Your task to perform on an android device: Search for seafood restaurants on Google Maps Image 0: 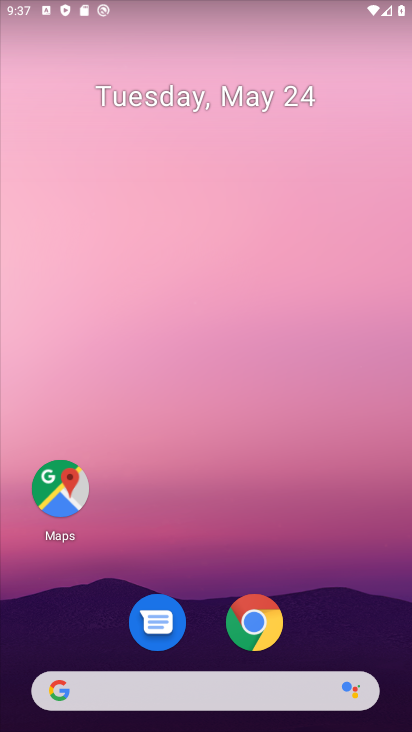
Step 0: drag from (213, 712) to (361, 109)
Your task to perform on an android device: Search for seafood restaurants on Google Maps Image 1: 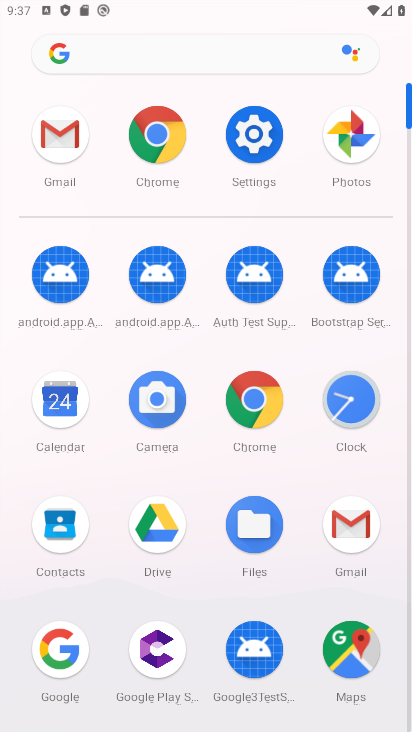
Step 1: click (352, 641)
Your task to perform on an android device: Search for seafood restaurants on Google Maps Image 2: 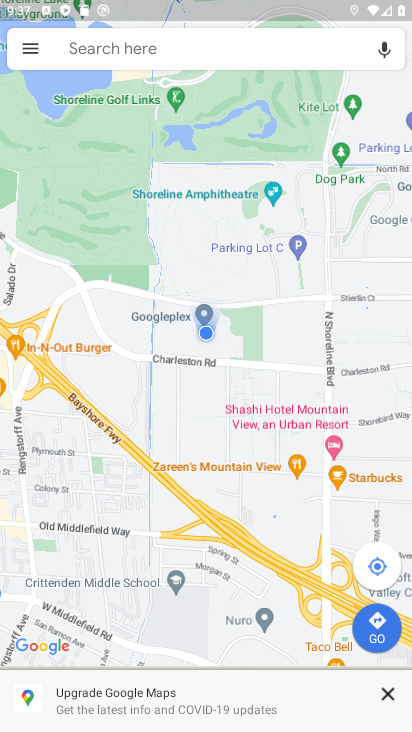
Step 2: click (144, 45)
Your task to perform on an android device: Search for seafood restaurants on Google Maps Image 3: 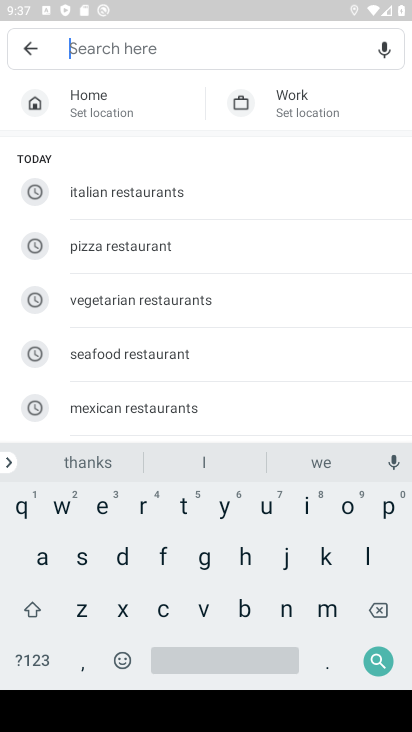
Step 3: click (75, 559)
Your task to perform on an android device: Search for seafood restaurants on Google Maps Image 4: 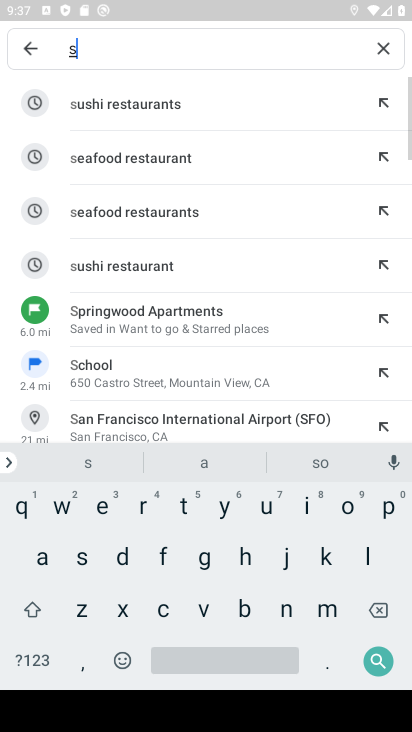
Step 4: click (151, 152)
Your task to perform on an android device: Search for seafood restaurants on Google Maps Image 5: 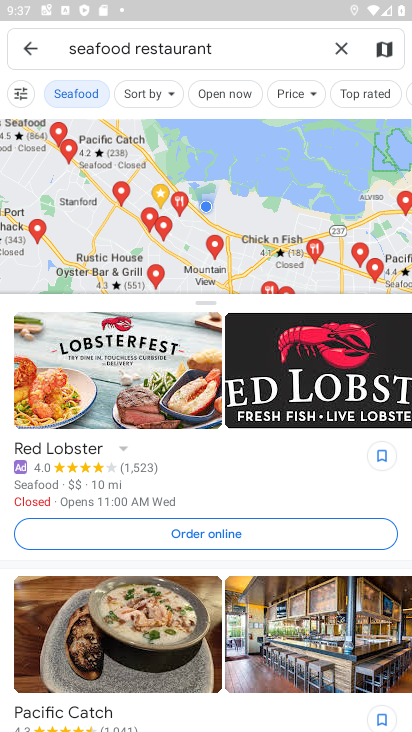
Step 5: click (155, 198)
Your task to perform on an android device: Search for seafood restaurants on Google Maps Image 6: 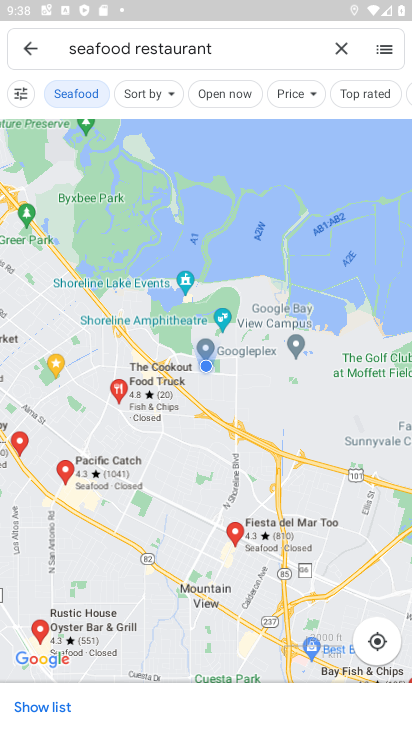
Step 6: task complete